Your task to perform on an android device: check out phone information Image 0: 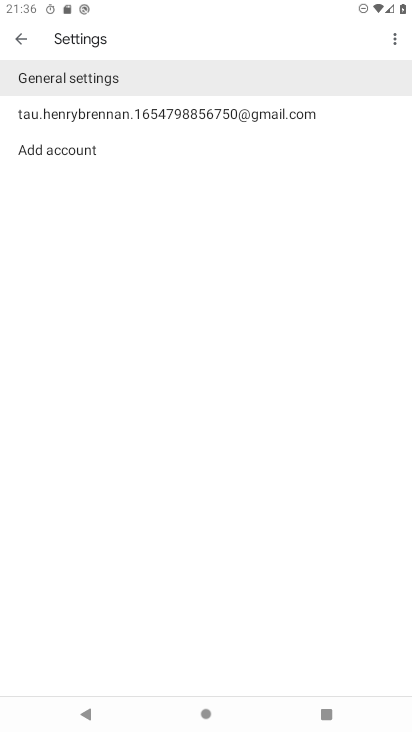
Step 0: press home button
Your task to perform on an android device: check out phone information Image 1: 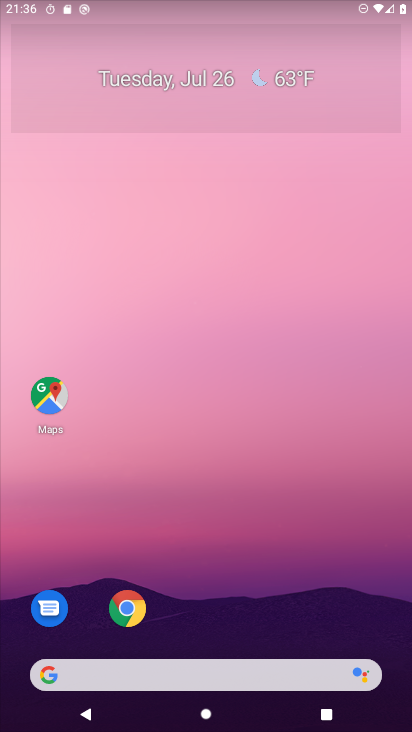
Step 1: drag from (51, 623) to (198, 119)
Your task to perform on an android device: check out phone information Image 2: 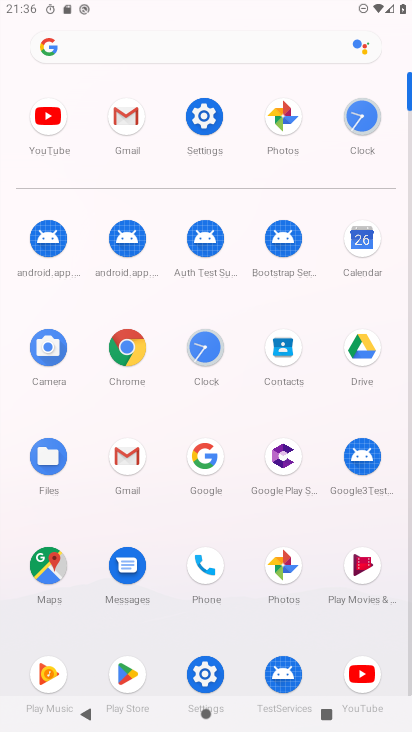
Step 2: click (204, 583)
Your task to perform on an android device: check out phone information Image 3: 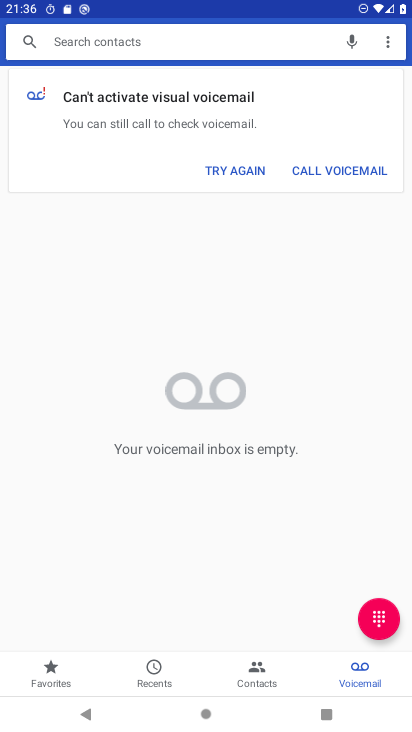
Step 3: click (251, 678)
Your task to perform on an android device: check out phone information Image 4: 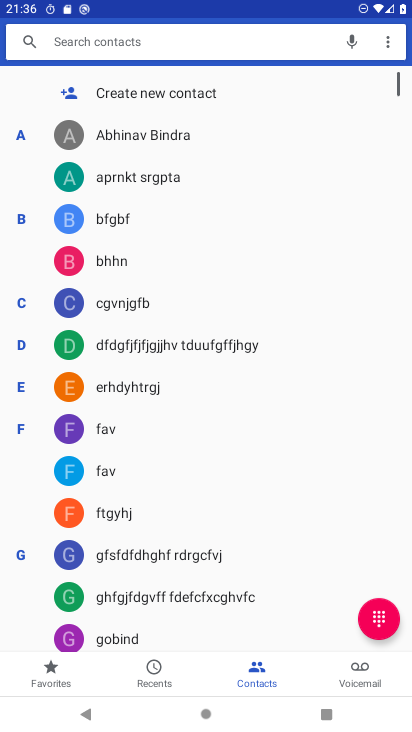
Step 4: task complete